Your task to perform on an android device: Search for vegetarian restaurants on Maps Image 0: 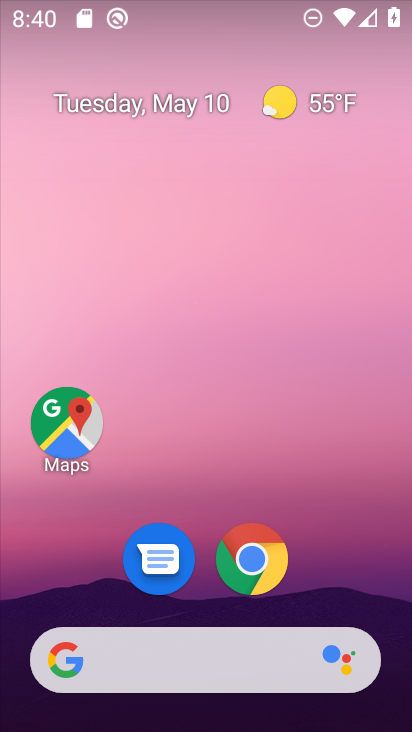
Step 0: drag from (228, 727) to (233, 117)
Your task to perform on an android device: Search for vegetarian restaurants on Maps Image 1: 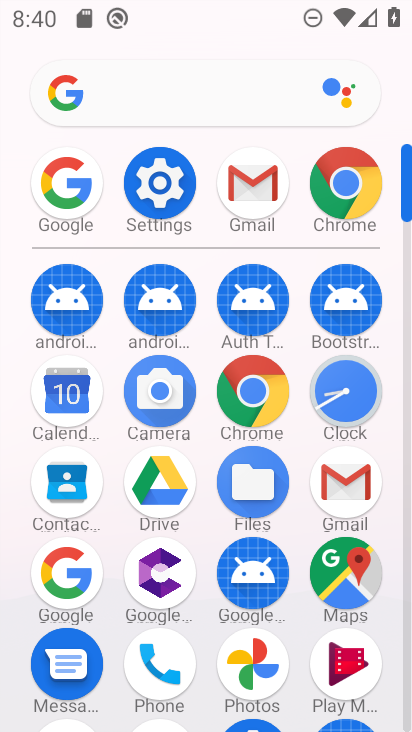
Step 1: click (338, 581)
Your task to perform on an android device: Search for vegetarian restaurants on Maps Image 2: 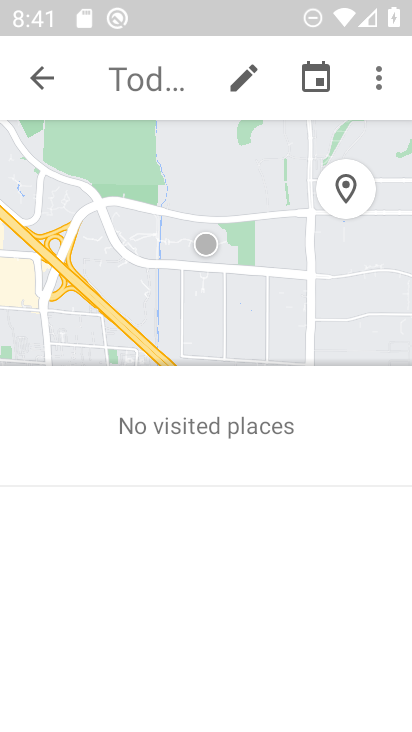
Step 2: click (48, 76)
Your task to perform on an android device: Search for vegetarian restaurants on Maps Image 3: 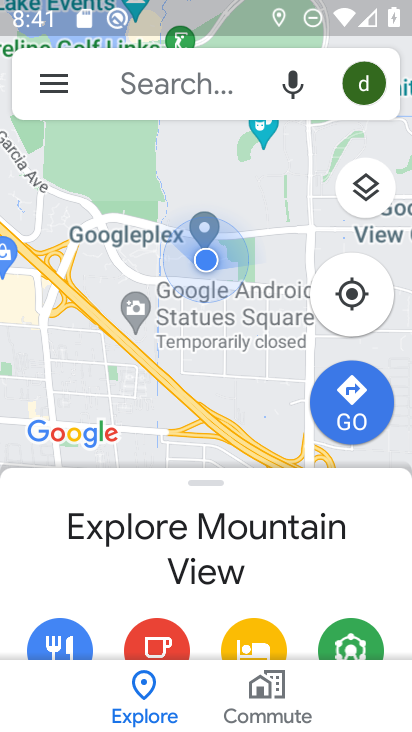
Step 3: click (152, 98)
Your task to perform on an android device: Search for vegetarian restaurants on Maps Image 4: 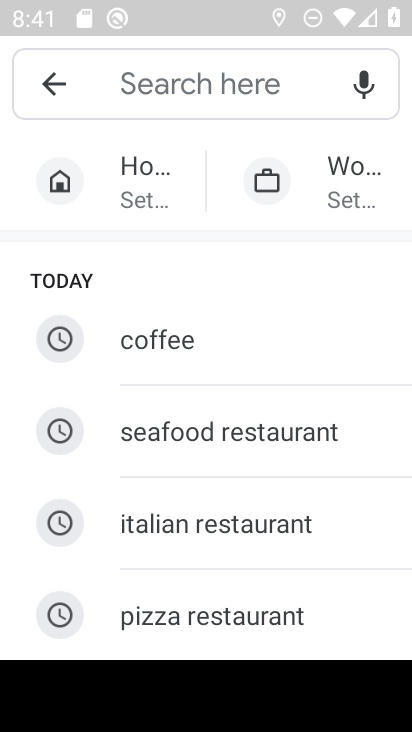
Step 4: click (191, 73)
Your task to perform on an android device: Search for vegetarian restaurants on Maps Image 5: 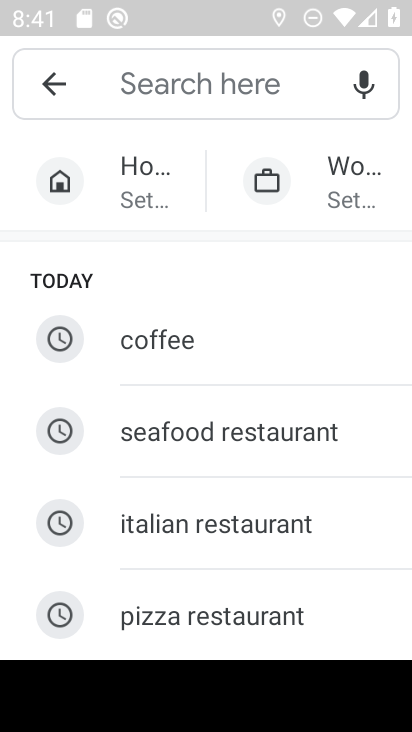
Step 5: type "Vegetarian restaurants"
Your task to perform on an android device: Search for vegetarian restaurants on Maps Image 6: 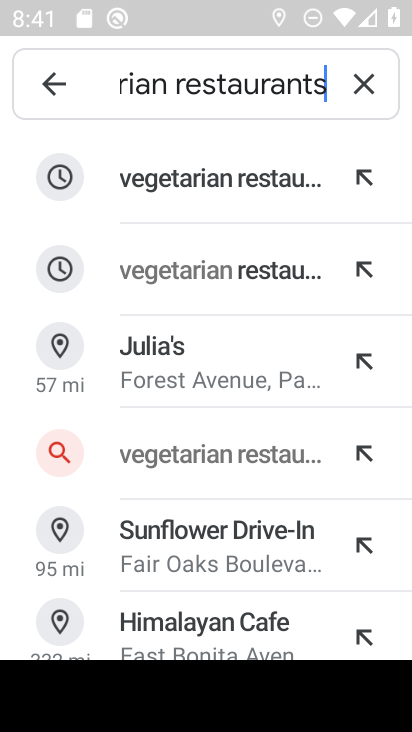
Step 6: click (158, 178)
Your task to perform on an android device: Search for vegetarian restaurants on Maps Image 7: 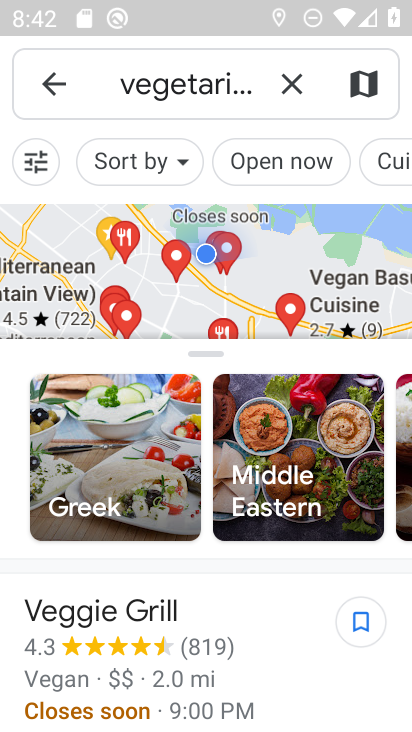
Step 7: task complete